Your task to perform on an android device: Go to Reddit.com Image 0: 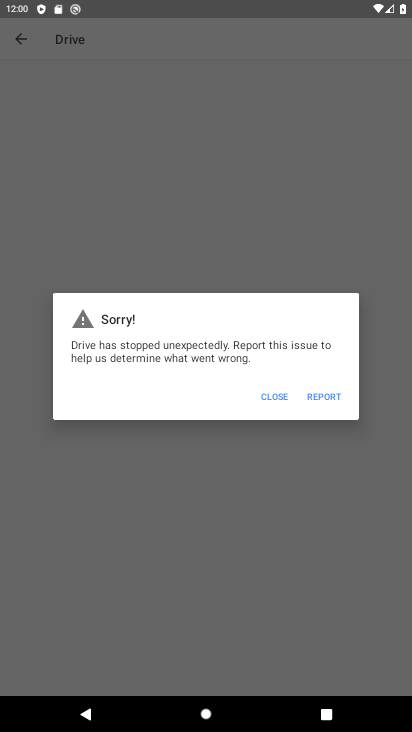
Step 0: press home button
Your task to perform on an android device: Go to Reddit.com Image 1: 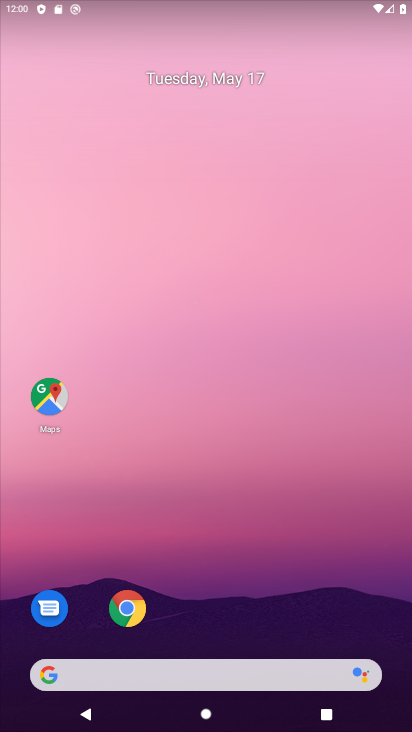
Step 1: click (125, 612)
Your task to perform on an android device: Go to Reddit.com Image 2: 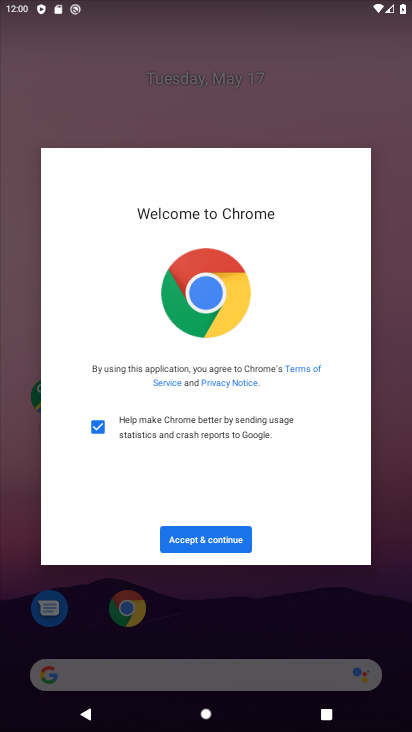
Step 2: click (194, 545)
Your task to perform on an android device: Go to Reddit.com Image 3: 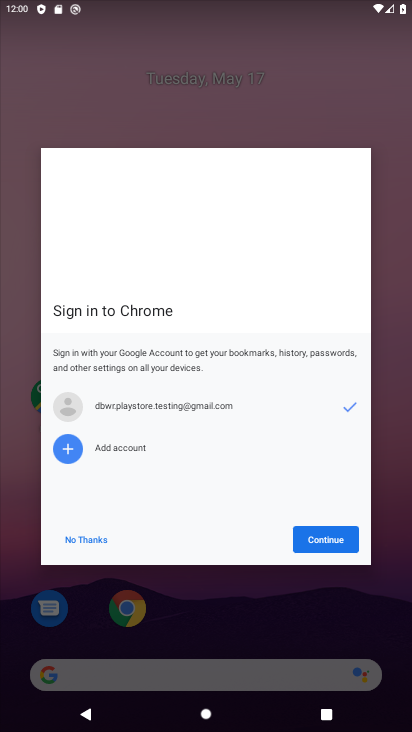
Step 3: click (324, 543)
Your task to perform on an android device: Go to Reddit.com Image 4: 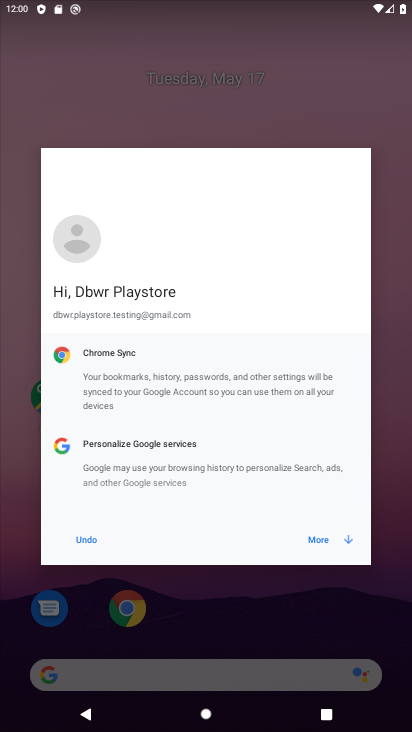
Step 4: click (325, 542)
Your task to perform on an android device: Go to Reddit.com Image 5: 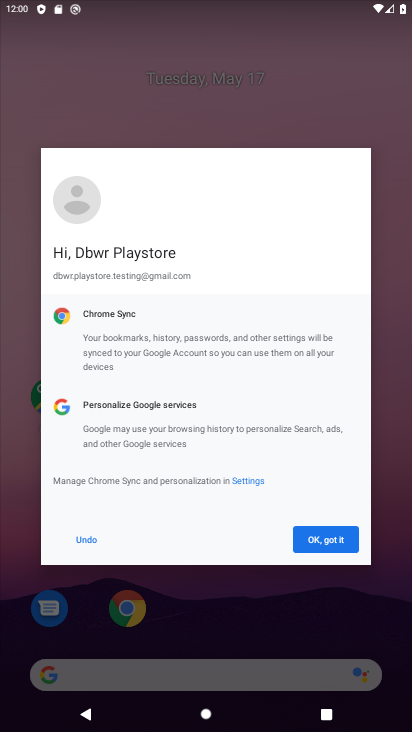
Step 5: click (325, 542)
Your task to perform on an android device: Go to Reddit.com Image 6: 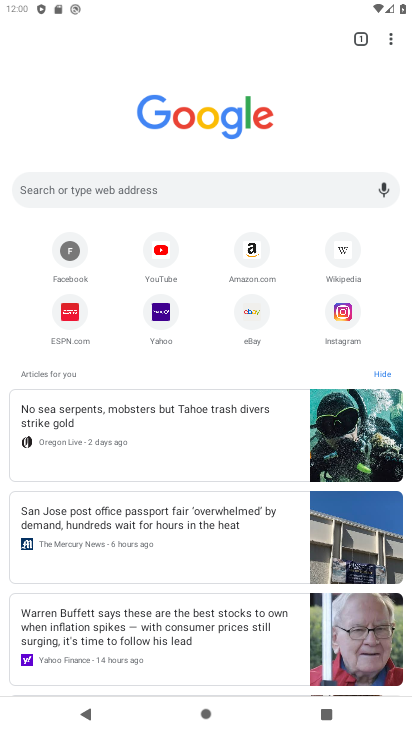
Step 6: click (168, 182)
Your task to perform on an android device: Go to Reddit.com Image 7: 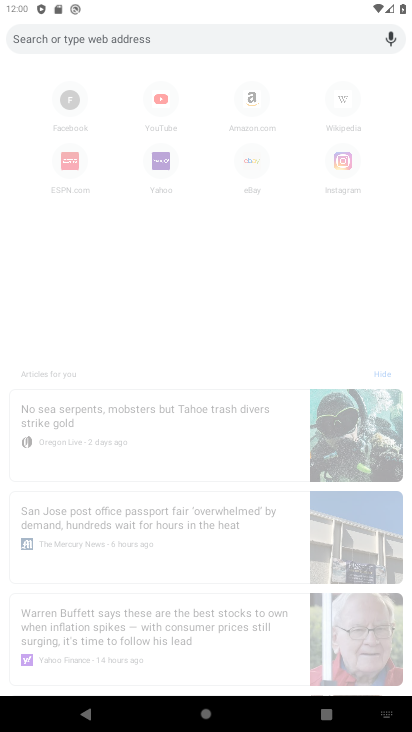
Step 7: type "www.reddit.com"
Your task to perform on an android device: Go to Reddit.com Image 8: 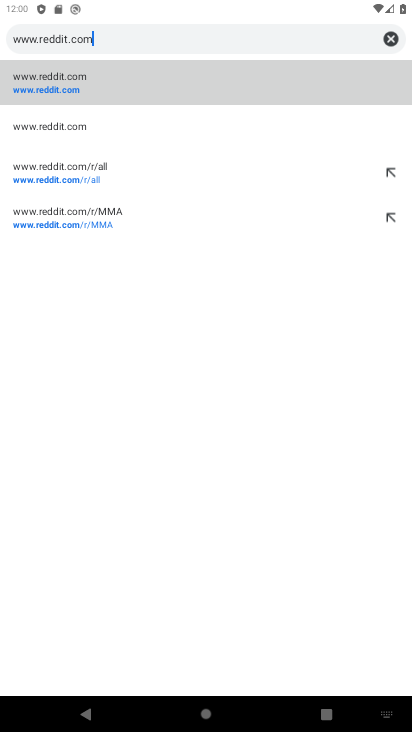
Step 8: click (55, 88)
Your task to perform on an android device: Go to Reddit.com Image 9: 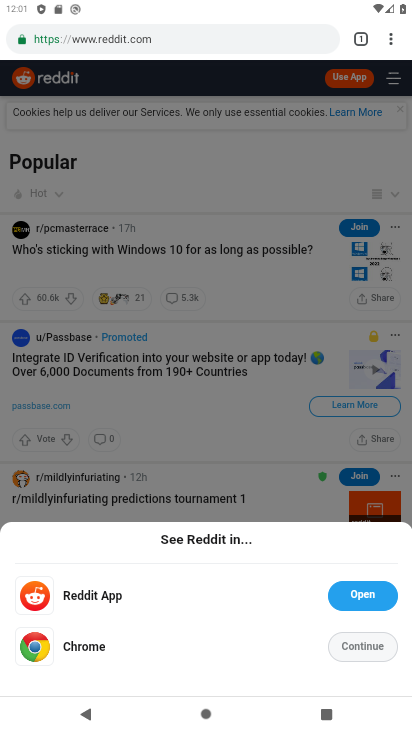
Step 9: task complete